Your task to perform on an android device: Open calendar and show me the second week of next month Image 0: 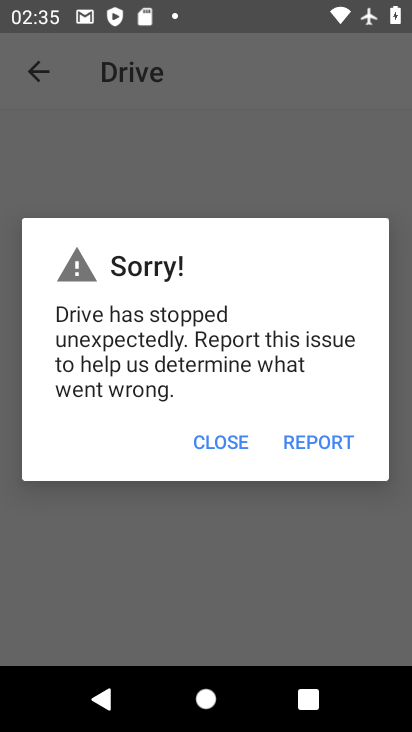
Step 0: press home button
Your task to perform on an android device: Open calendar and show me the second week of next month Image 1: 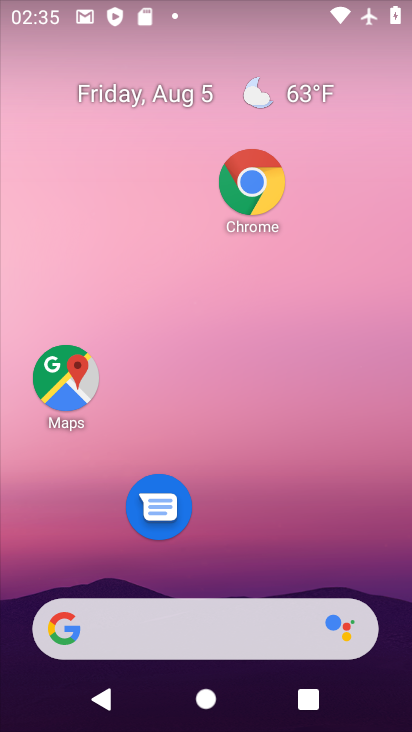
Step 1: drag from (220, 506) to (322, 2)
Your task to perform on an android device: Open calendar and show me the second week of next month Image 2: 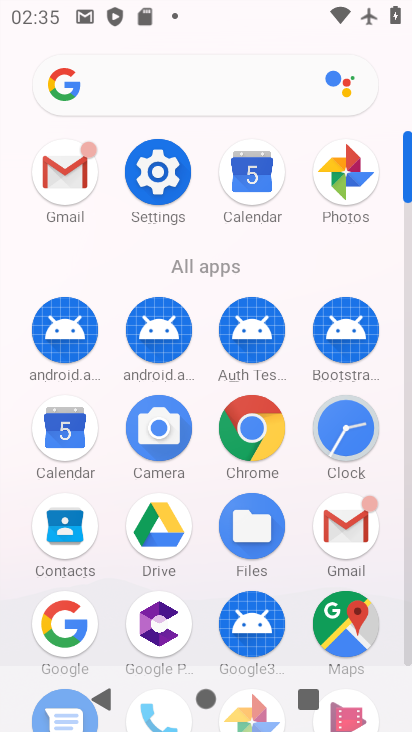
Step 2: click (69, 443)
Your task to perform on an android device: Open calendar and show me the second week of next month Image 3: 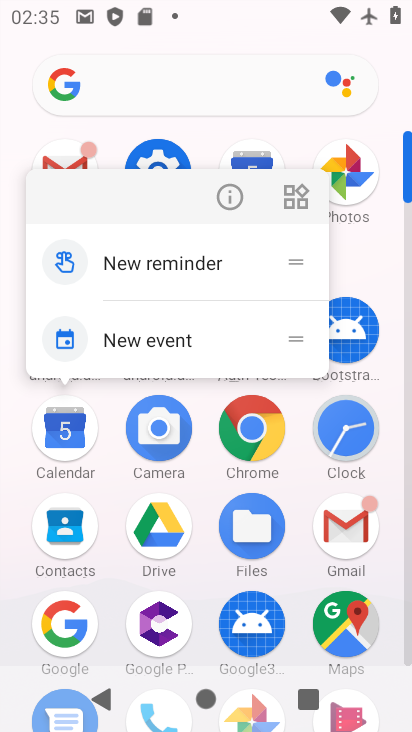
Step 3: click (48, 447)
Your task to perform on an android device: Open calendar and show me the second week of next month Image 4: 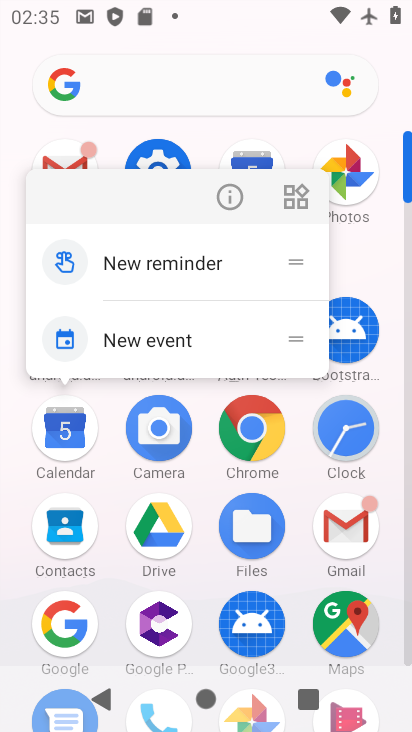
Step 4: click (48, 447)
Your task to perform on an android device: Open calendar and show me the second week of next month Image 5: 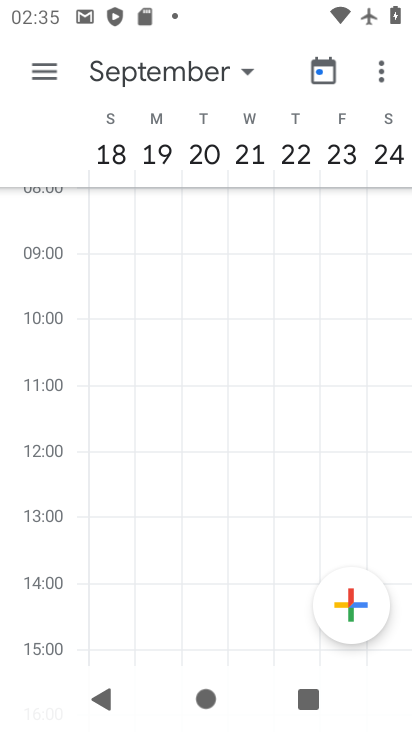
Step 5: task complete